Your task to perform on an android device: Go to settings Image 0: 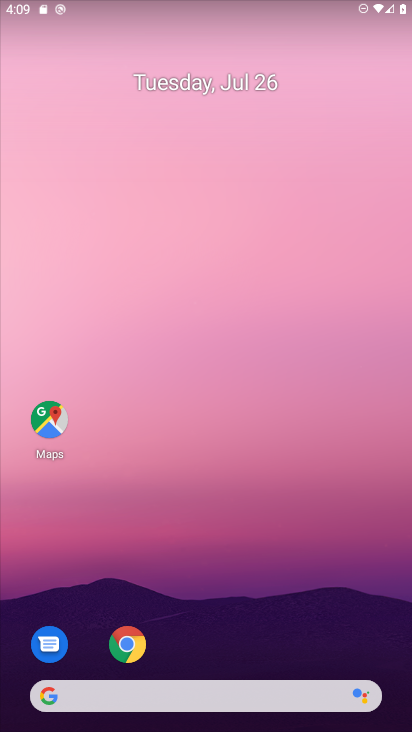
Step 0: drag from (387, 648) to (359, 201)
Your task to perform on an android device: Go to settings Image 1: 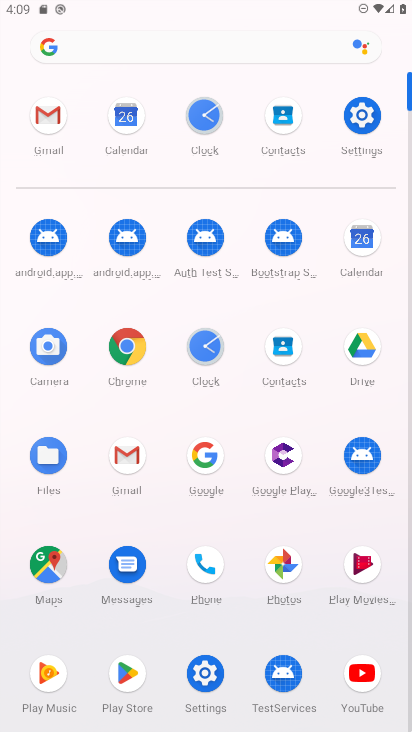
Step 1: click (207, 674)
Your task to perform on an android device: Go to settings Image 2: 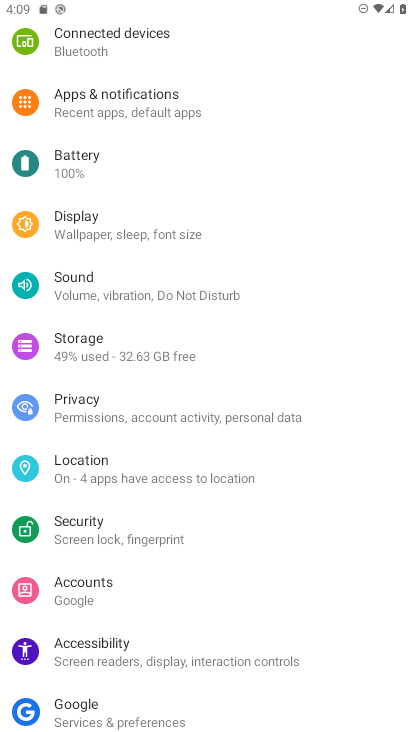
Step 2: task complete